Your task to perform on an android device: Do I have any events tomorrow? Image 0: 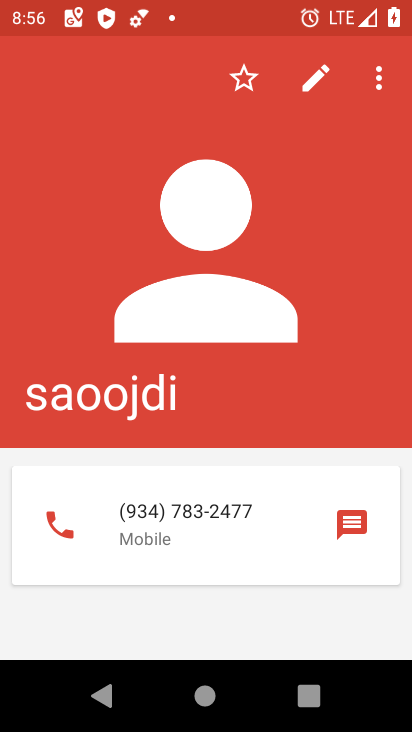
Step 0: press home button
Your task to perform on an android device: Do I have any events tomorrow? Image 1: 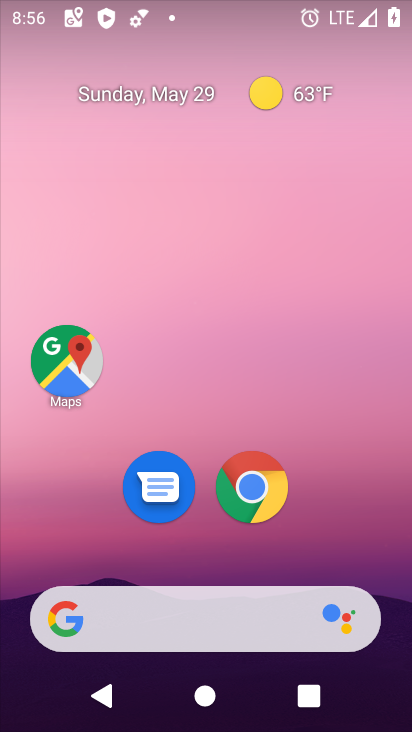
Step 1: drag from (279, 619) to (269, 197)
Your task to perform on an android device: Do I have any events tomorrow? Image 2: 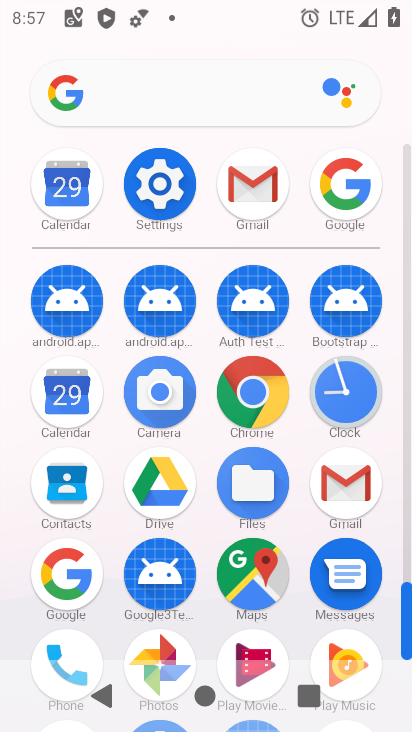
Step 2: click (63, 396)
Your task to perform on an android device: Do I have any events tomorrow? Image 3: 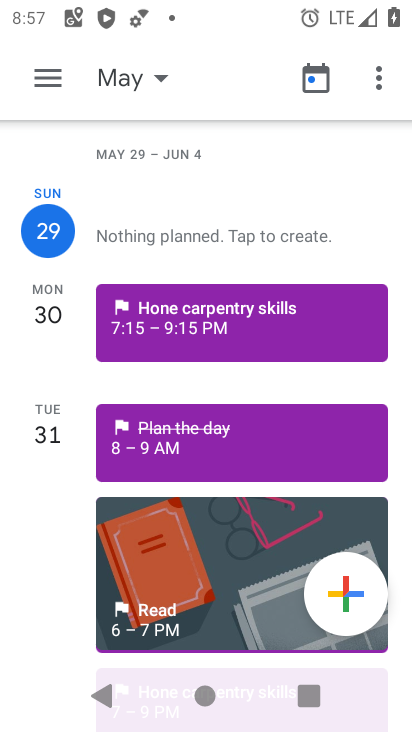
Step 3: task complete